Your task to perform on an android device: turn off picture-in-picture Image 0: 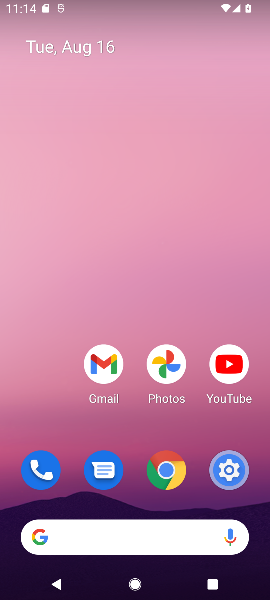
Step 0: click (167, 469)
Your task to perform on an android device: turn off picture-in-picture Image 1: 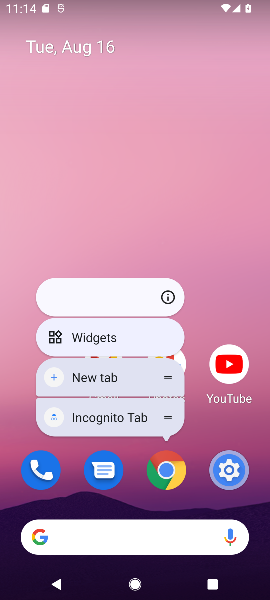
Step 1: click (171, 297)
Your task to perform on an android device: turn off picture-in-picture Image 2: 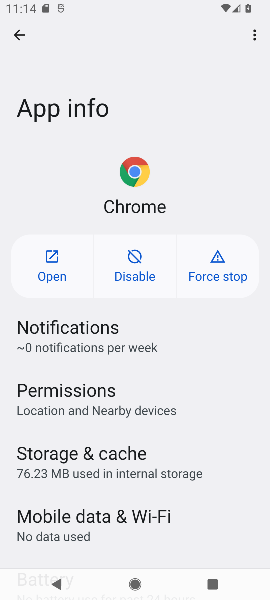
Step 2: drag from (130, 467) to (122, 130)
Your task to perform on an android device: turn off picture-in-picture Image 3: 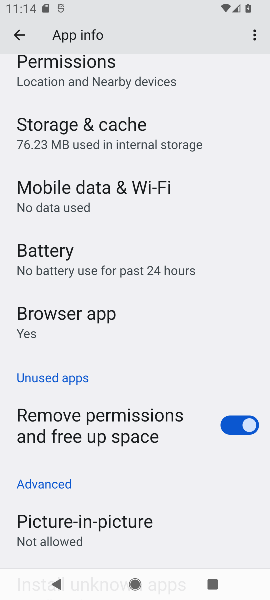
Step 3: click (138, 517)
Your task to perform on an android device: turn off picture-in-picture Image 4: 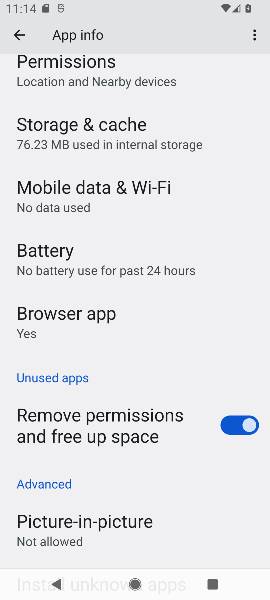
Step 4: click (138, 517)
Your task to perform on an android device: turn off picture-in-picture Image 5: 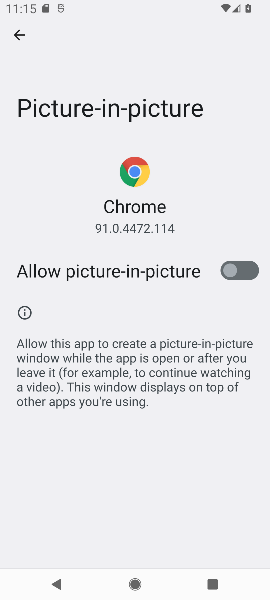
Step 5: task complete